Your task to perform on an android device: turn notification dots off Image 0: 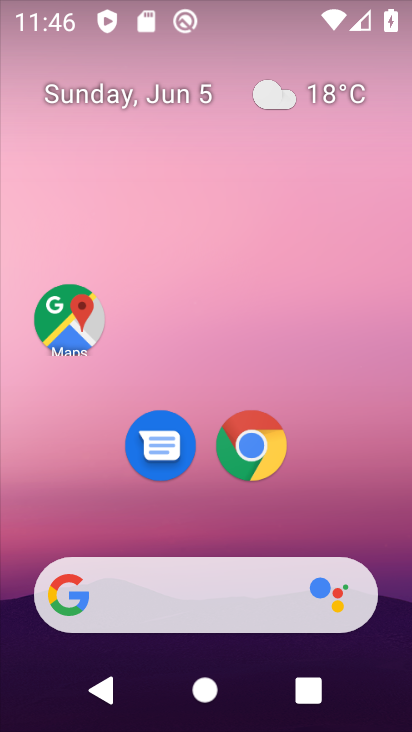
Step 0: drag from (281, 603) to (283, 69)
Your task to perform on an android device: turn notification dots off Image 1: 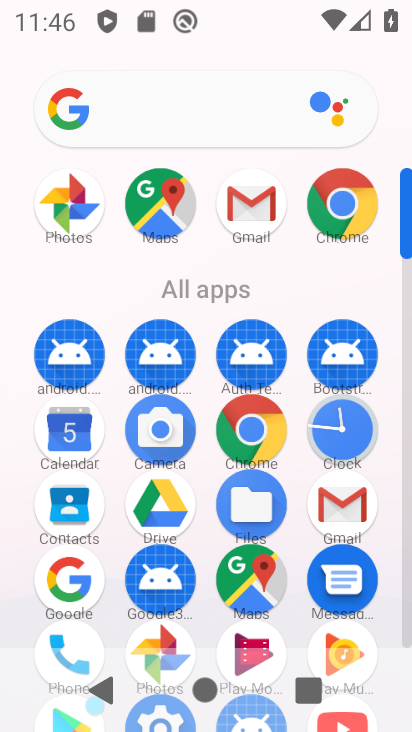
Step 1: drag from (274, 678) to (287, 361)
Your task to perform on an android device: turn notification dots off Image 2: 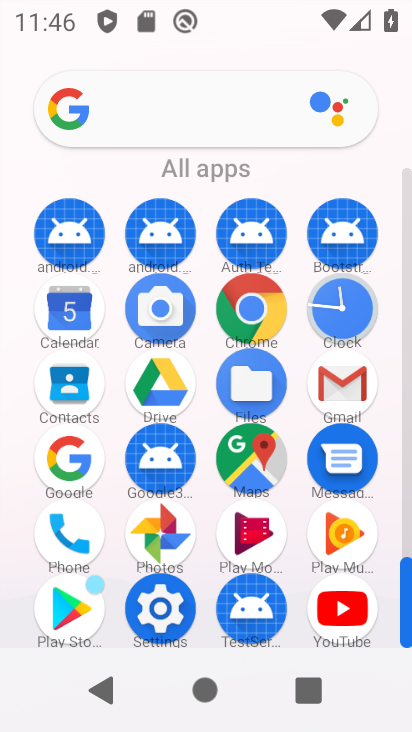
Step 2: click (146, 613)
Your task to perform on an android device: turn notification dots off Image 3: 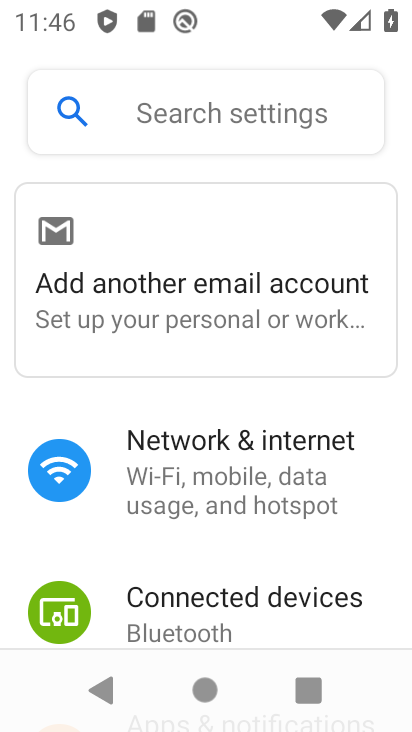
Step 3: drag from (261, 605) to (278, 282)
Your task to perform on an android device: turn notification dots off Image 4: 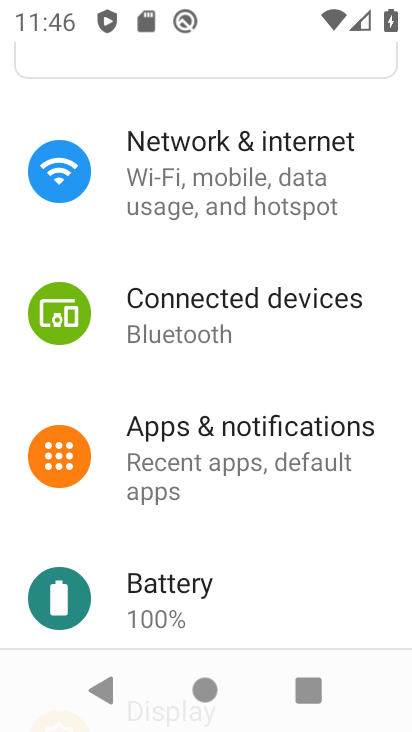
Step 4: click (263, 427)
Your task to perform on an android device: turn notification dots off Image 5: 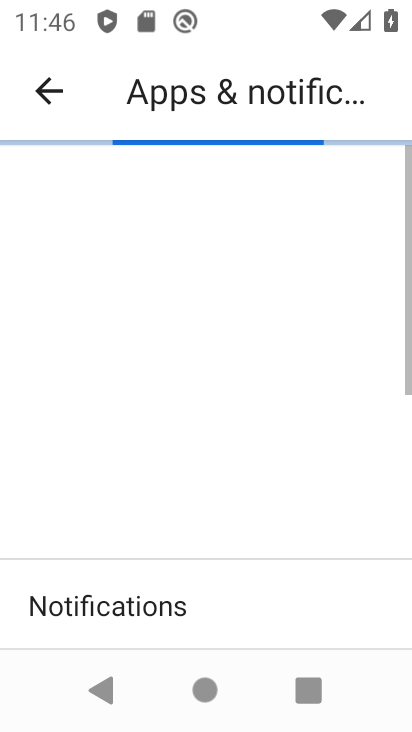
Step 5: click (258, 447)
Your task to perform on an android device: turn notification dots off Image 6: 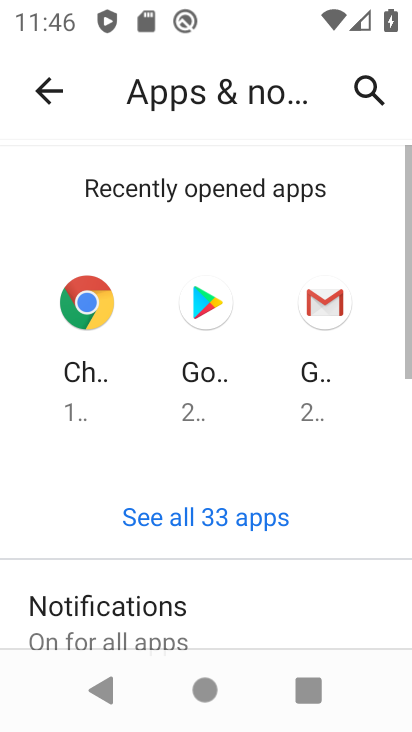
Step 6: drag from (279, 639) to (310, 245)
Your task to perform on an android device: turn notification dots off Image 7: 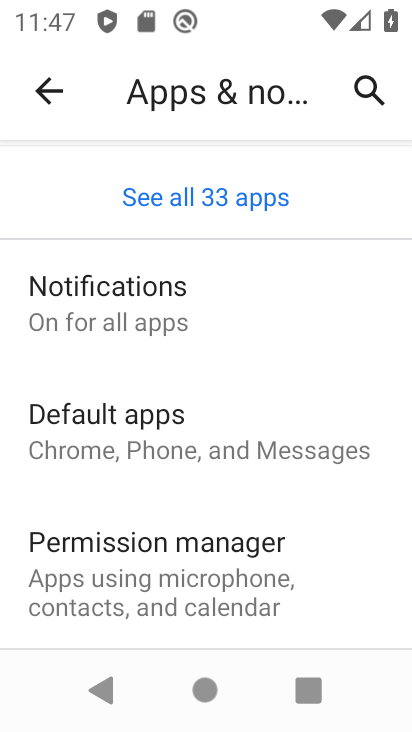
Step 7: drag from (218, 632) to (241, 390)
Your task to perform on an android device: turn notification dots off Image 8: 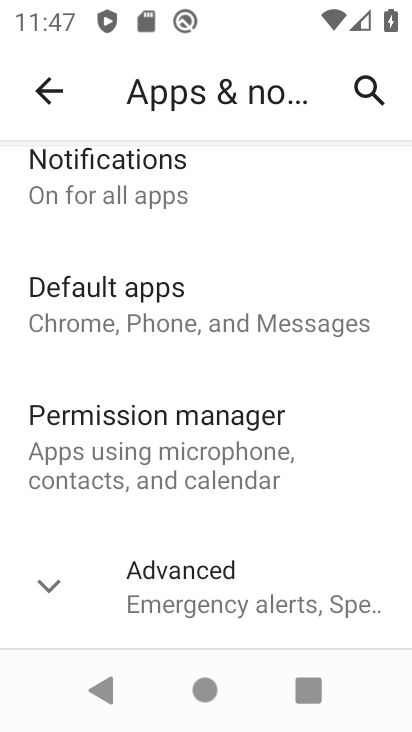
Step 8: click (158, 203)
Your task to perform on an android device: turn notification dots off Image 9: 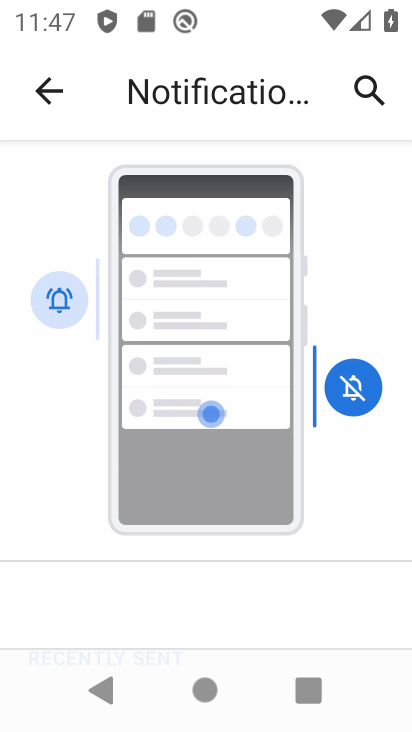
Step 9: drag from (245, 632) to (187, 77)
Your task to perform on an android device: turn notification dots off Image 10: 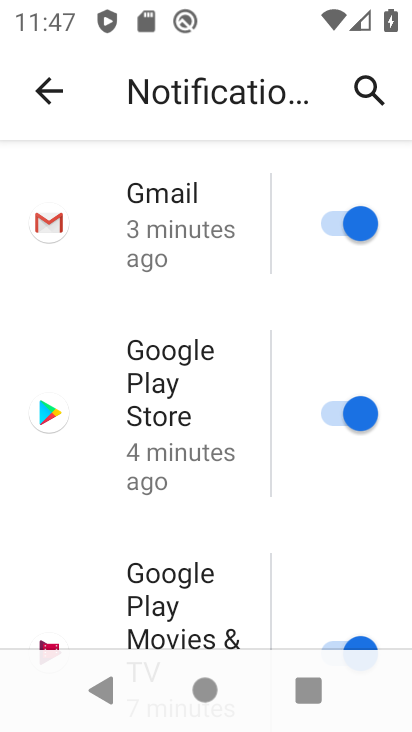
Step 10: drag from (211, 611) to (155, 117)
Your task to perform on an android device: turn notification dots off Image 11: 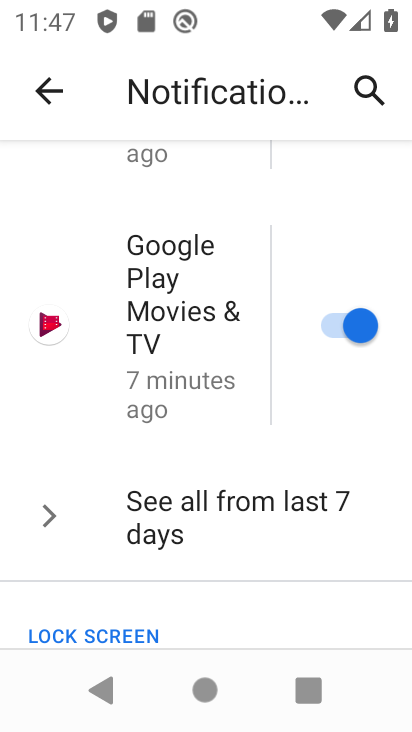
Step 11: drag from (238, 593) to (232, 190)
Your task to perform on an android device: turn notification dots off Image 12: 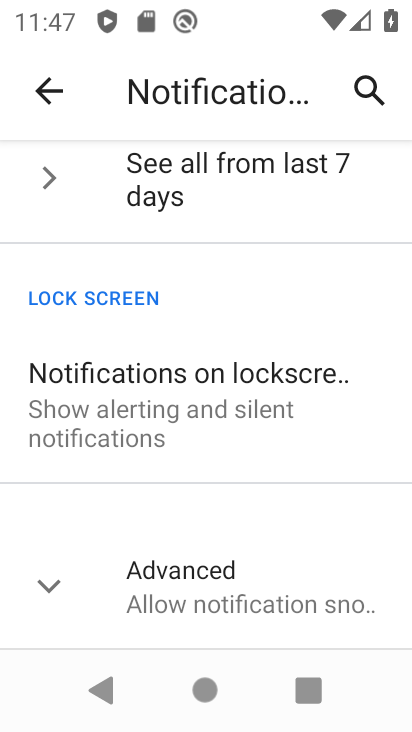
Step 12: click (158, 576)
Your task to perform on an android device: turn notification dots off Image 13: 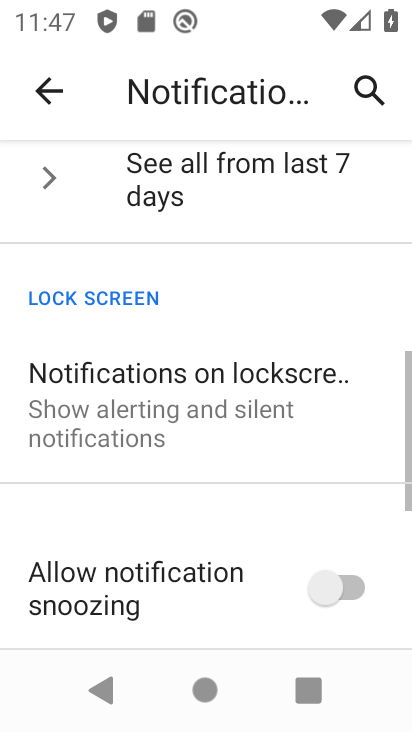
Step 13: drag from (165, 593) to (179, 158)
Your task to perform on an android device: turn notification dots off Image 14: 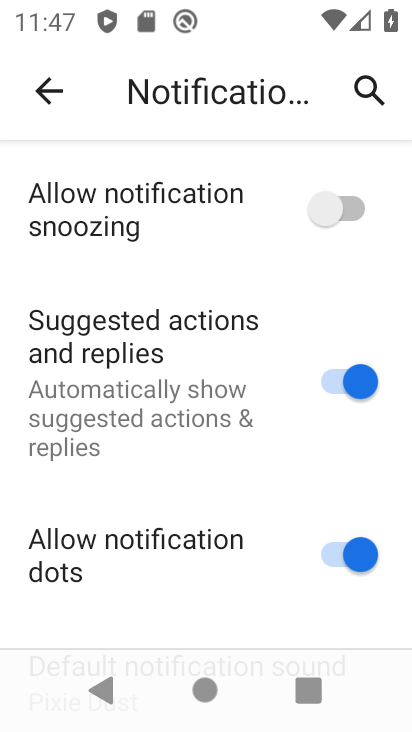
Step 14: click (356, 554)
Your task to perform on an android device: turn notification dots off Image 15: 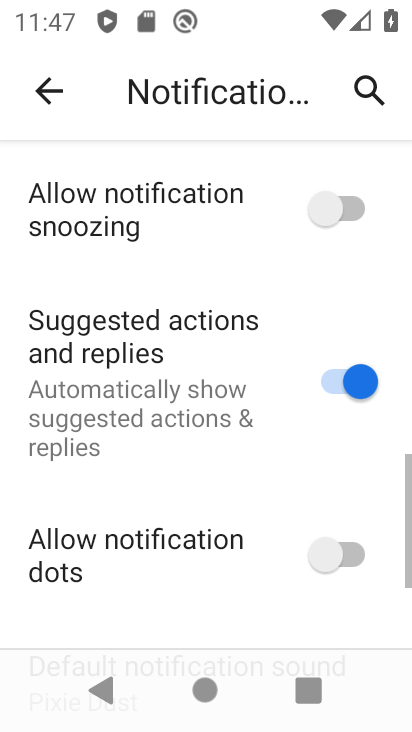
Step 15: task complete